Your task to perform on an android device: add a contact in the contacts app Image 0: 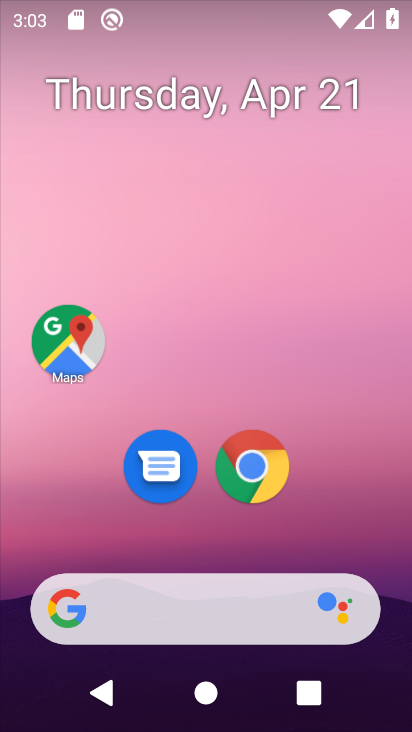
Step 0: drag from (205, 534) to (211, 185)
Your task to perform on an android device: add a contact in the contacts app Image 1: 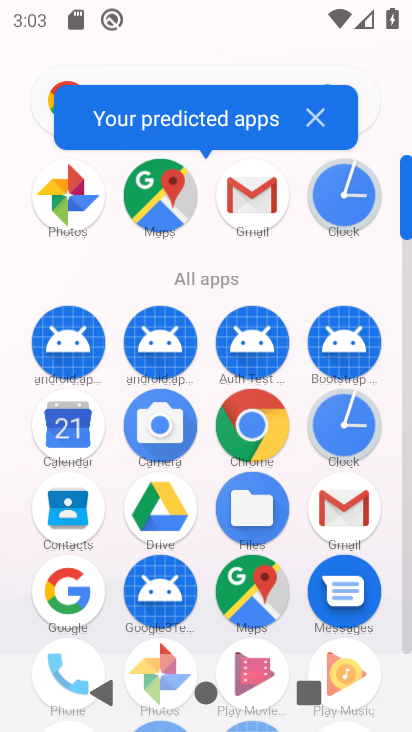
Step 1: click (71, 506)
Your task to perform on an android device: add a contact in the contacts app Image 2: 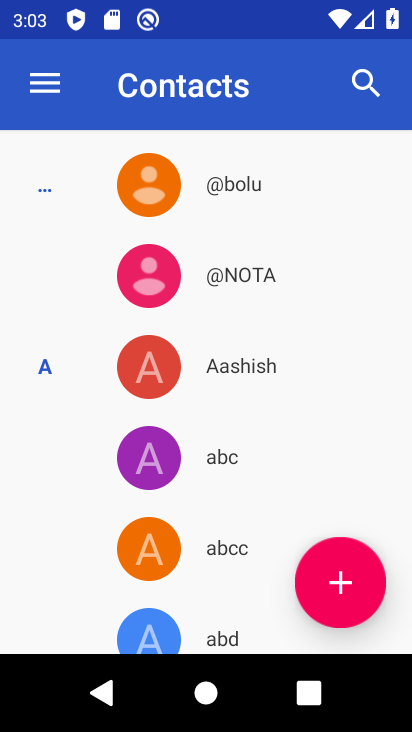
Step 2: click (320, 592)
Your task to perform on an android device: add a contact in the contacts app Image 3: 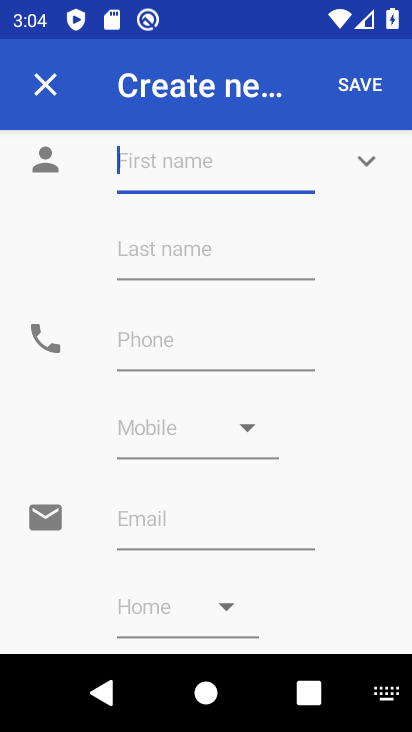
Step 3: type "gffg"
Your task to perform on an android device: add a contact in the contacts app Image 4: 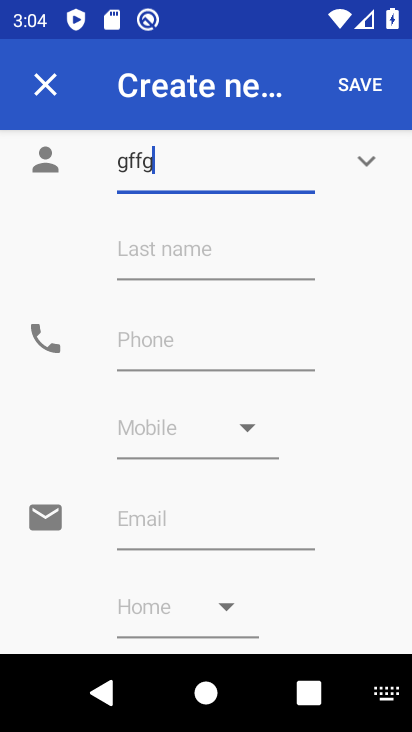
Step 4: click (193, 341)
Your task to perform on an android device: add a contact in the contacts app Image 5: 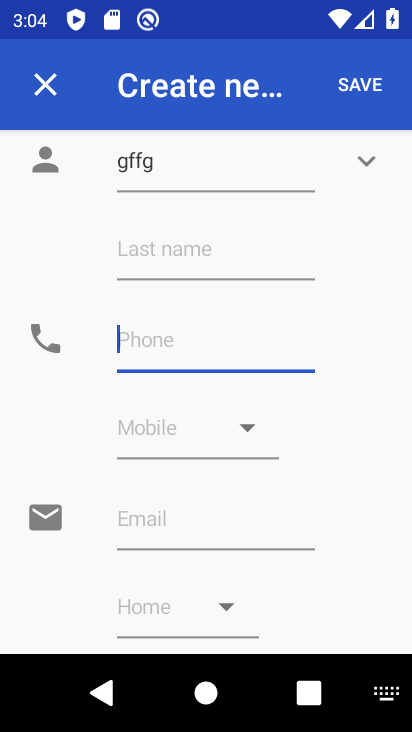
Step 5: type "9676868766"
Your task to perform on an android device: add a contact in the contacts app Image 6: 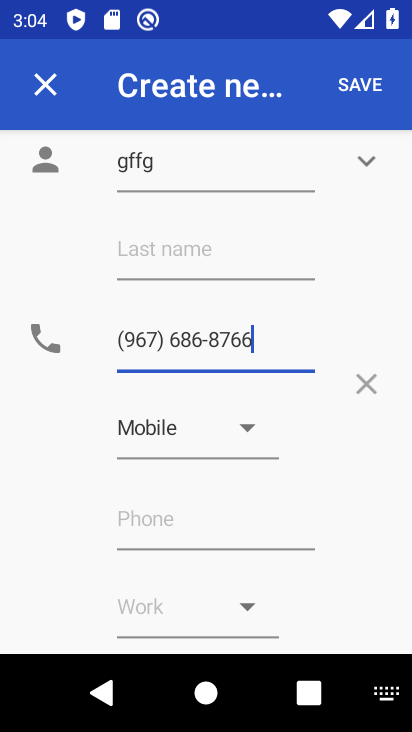
Step 6: click (354, 85)
Your task to perform on an android device: add a contact in the contacts app Image 7: 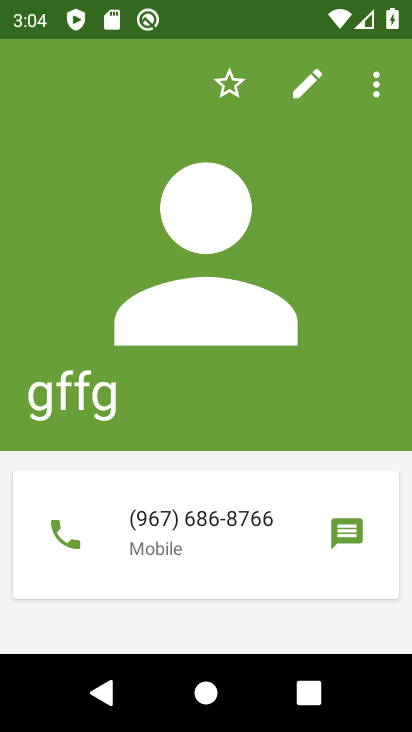
Step 7: task complete